Your task to perform on an android device: Go to privacy settings Image 0: 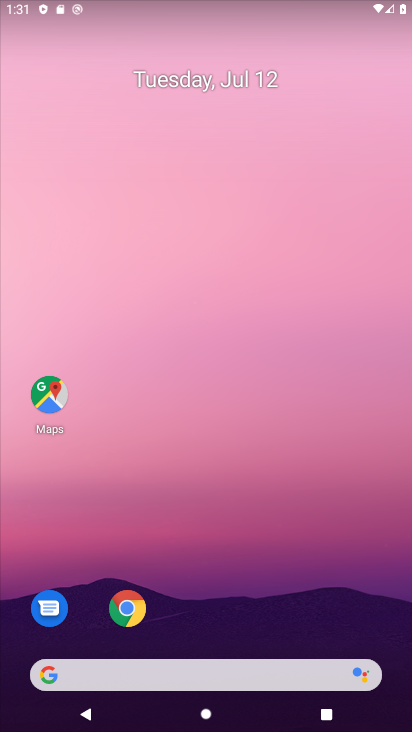
Step 0: drag from (281, 630) to (258, 52)
Your task to perform on an android device: Go to privacy settings Image 1: 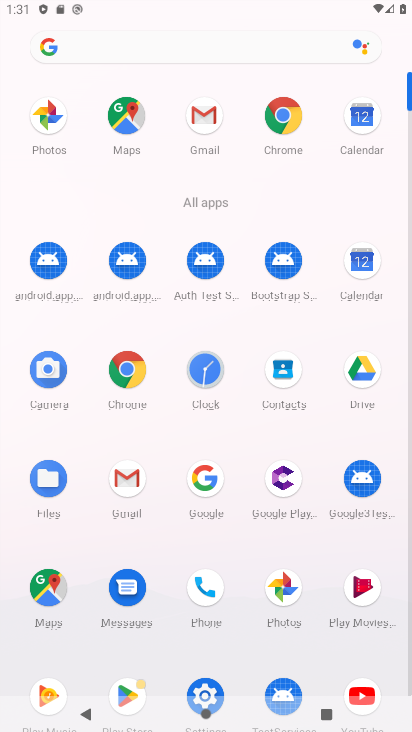
Step 1: click (197, 688)
Your task to perform on an android device: Go to privacy settings Image 2: 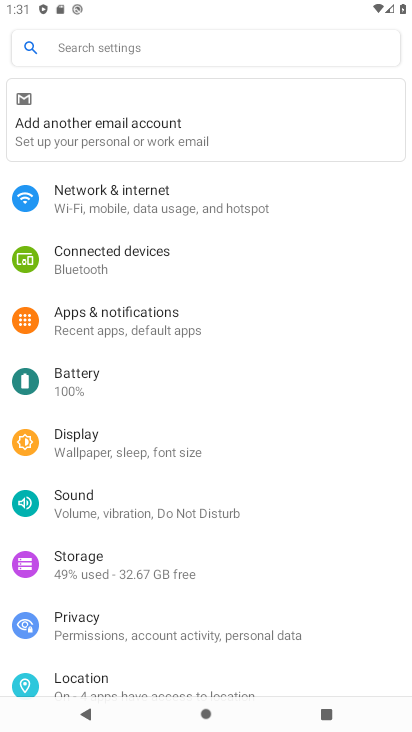
Step 2: click (94, 616)
Your task to perform on an android device: Go to privacy settings Image 3: 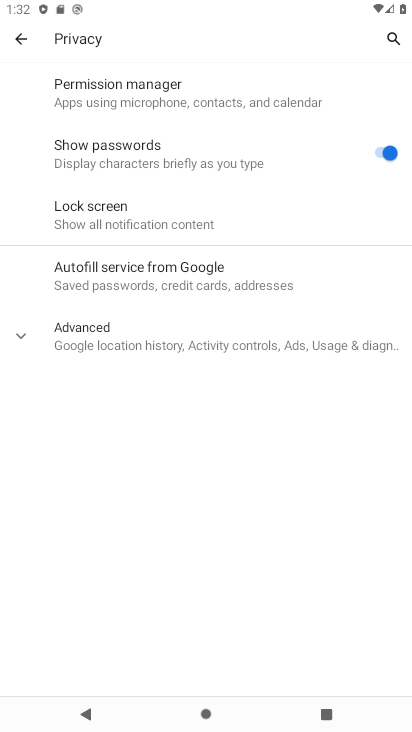
Step 3: task complete